Your task to perform on an android device: Clear the shopping cart on walmart.com. Add "usb-a to usb-b" to the cart on walmart.com, then select checkout. Image 0: 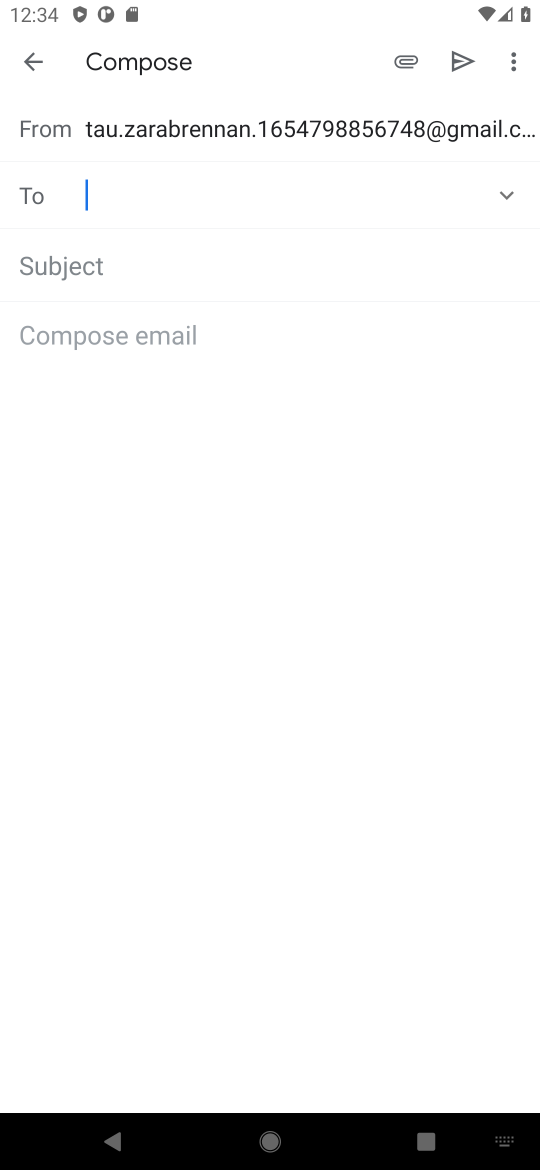
Step 0: press home button
Your task to perform on an android device: Clear the shopping cart on walmart.com. Add "usb-a to usb-b" to the cart on walmart.com, then select checkout. Image 1: 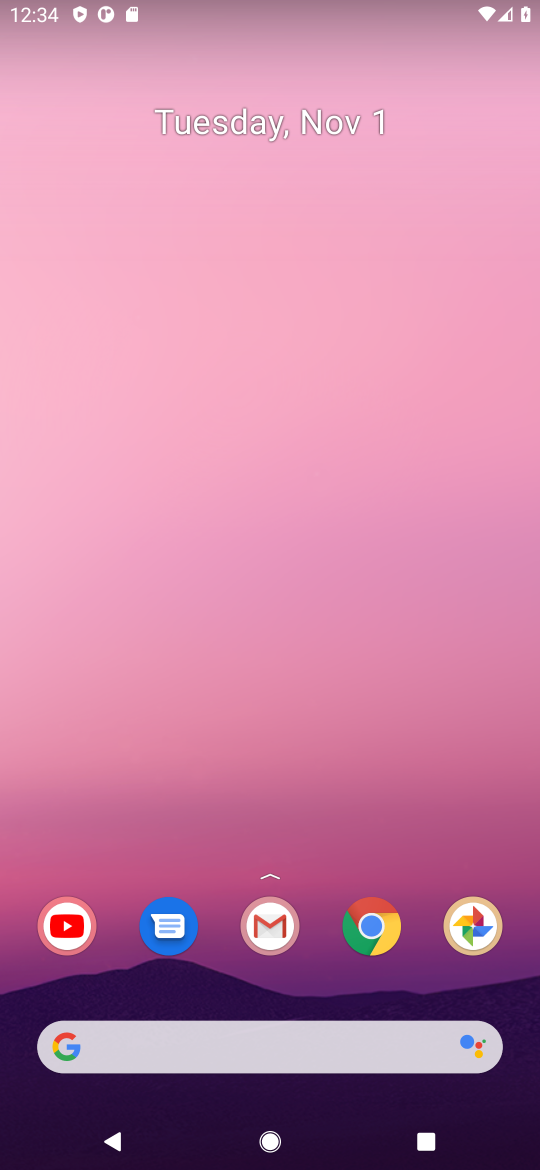
Step 1: click (381, 935)
Your task to perform on an android device: Clear the shopping cart on walmart.com. Add "usb-a to usb-b" to the cart on walmart.com, then select checkout. Image 2: 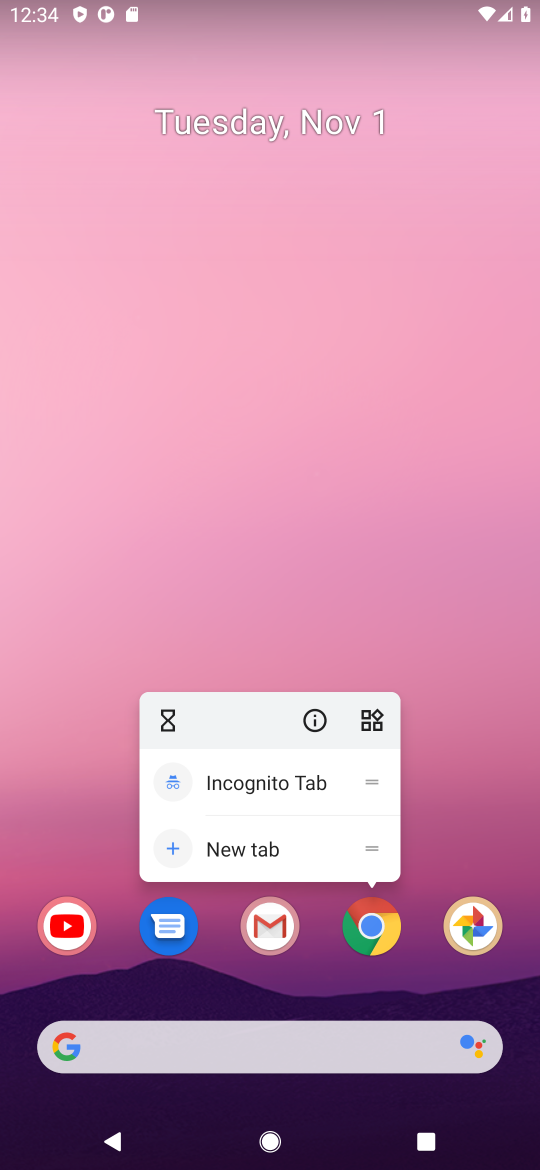
Step 2: click (373, 925)
Your task to perform on an android device: Clear the shopping cart on walmart.com. Add "usb-a to usb-b" to the cart on walmart.com, then select checkout. Image 3: 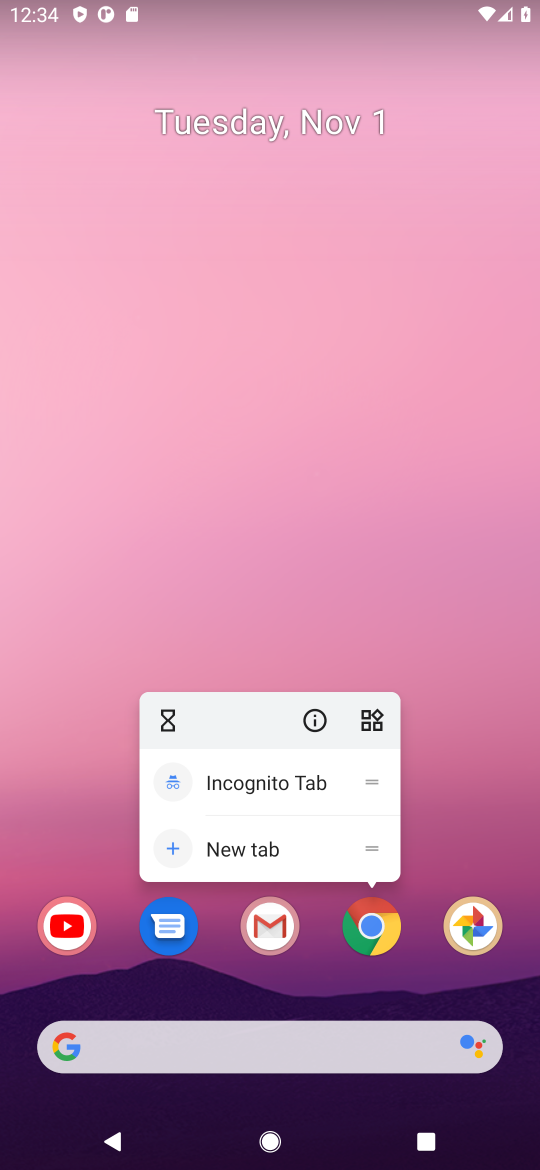
Step 3: click (369, 928)
Your task to perform on an android device: Clear the shopping cart on walmart.com. Add "usb-a to usb-b" to the cart on walmart.com, then select checkout. Image 4: 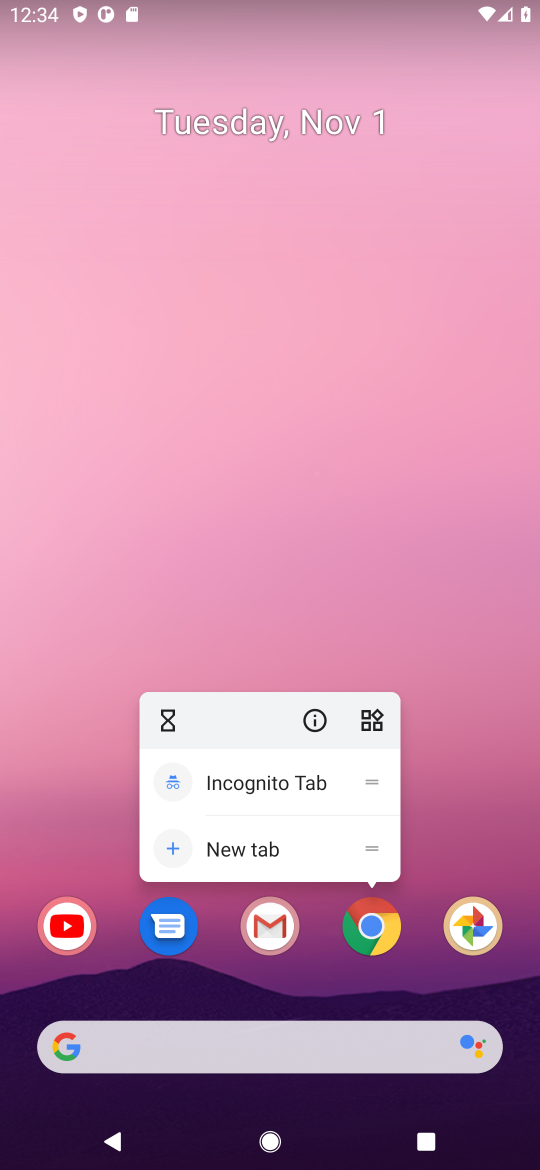
Step 4: click (372, 934)
Your task to perform on an android device: Clear the shopping cart on walmart.com. Add "usb-a to usb-b" to the cart on walmart.com, then select checkout. Image 5: 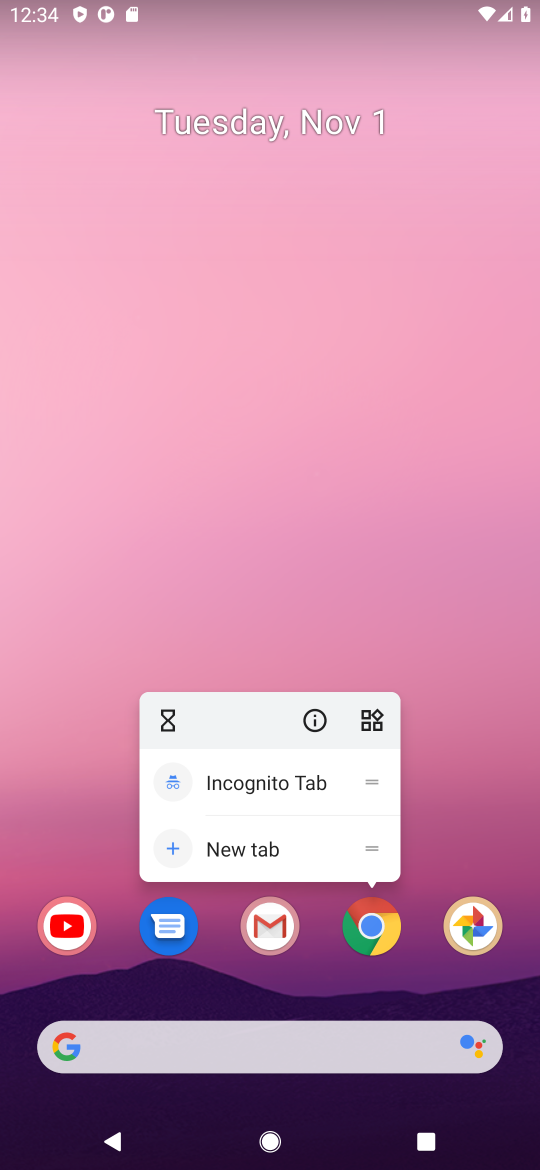
Step 5: click (373, 925)
Your task to perform on an android device: Clear the shopping cart on walmart.com. Add "usb-a to usb-b" to the cart on walmart.com, then select checkout. Image 6: 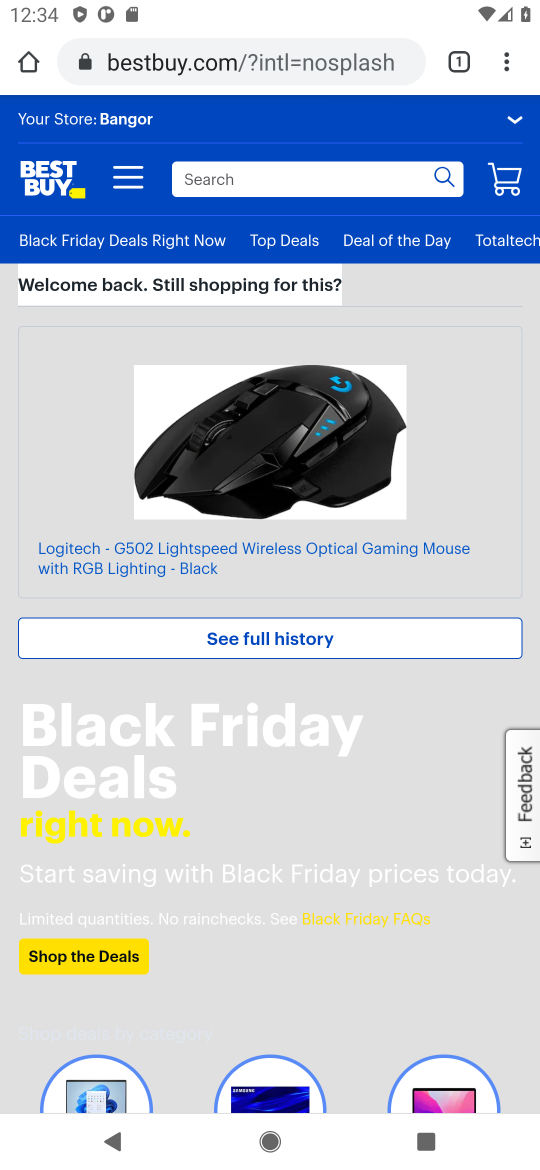
Step 6: click (175, 70)
Your task to perform on an android device: Clear the shopping cart on walmart.com. Add "usb-a to usb-b" to the cart on walmart.com, then select checkout. Image 7: 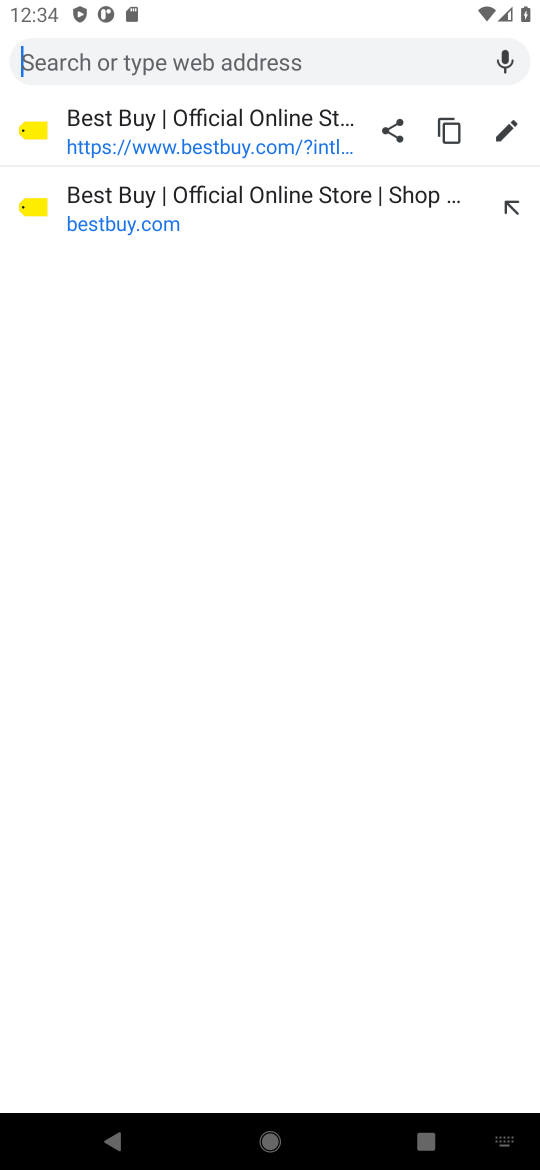
Step 7: type "walmart.com"
Your task to perform on an android device: Clear the shopping cart on walmart.com. Add "usb-a to usb-b" to the cart on walmart.com, then select checkout. Image 8: 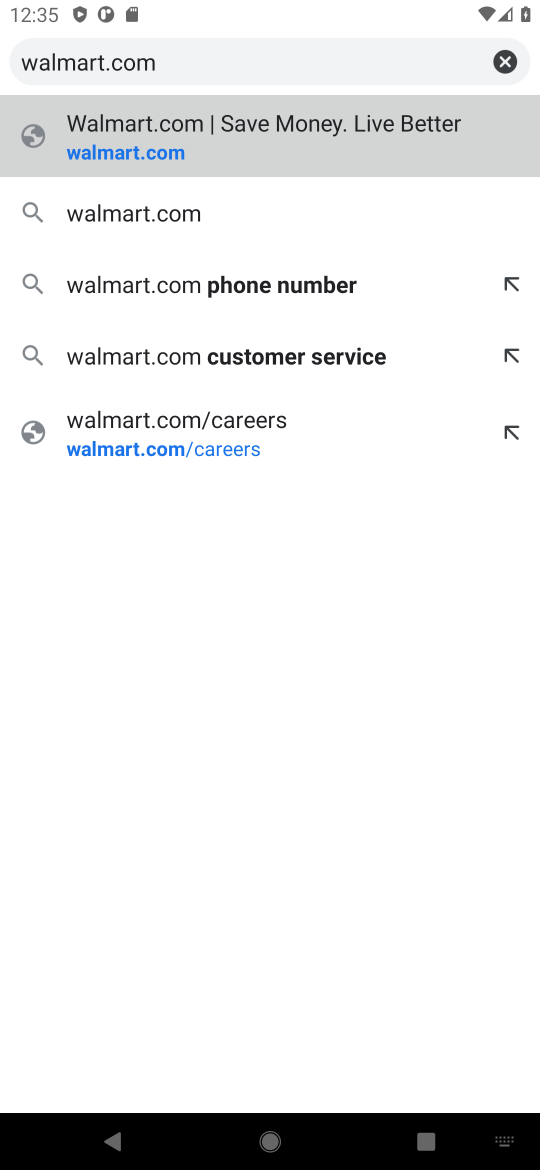
Step 8: type ""
Your task to perform on an android device: Clear the shopping cart on walmart.com. Add "usb-a to usb-b" to the cart on walmart.com, then select checkout. Image 9: 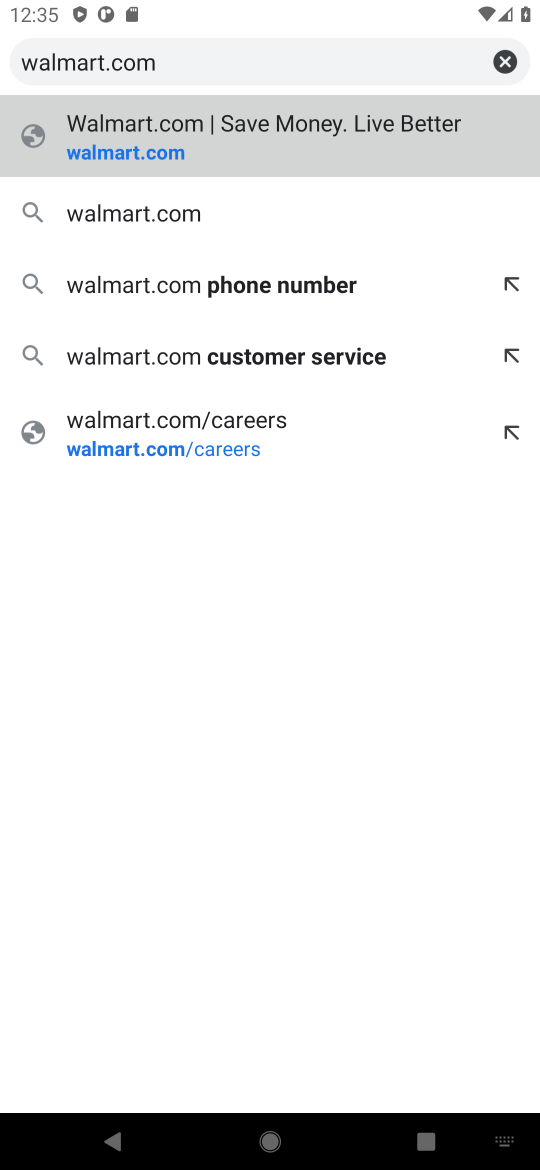
Step 9: click (376, 122)
Your task to perform on an android device: Clear the shopping cart on walmart.com. Add "usb-a to usb-b" to the cart on walmart.com, then select checkout. Image 10: 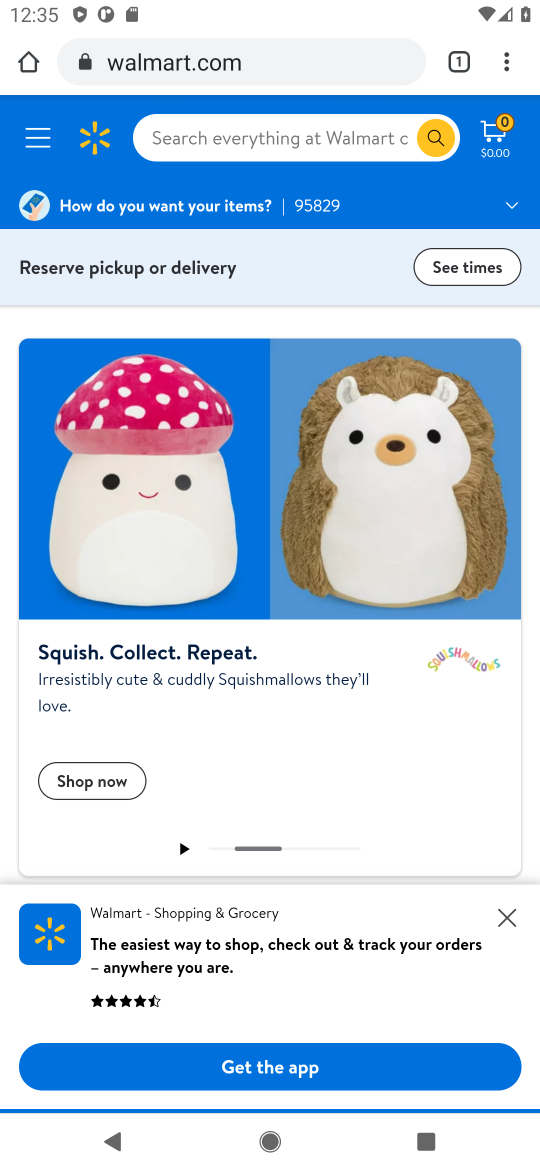
Step 10: click (250, 129)
Your task to perform on an android device: Clear the shopping cart on walmart.com. Add "usb-a to usb-b" to the cart on walmart.com, then select checkout. Image 11: 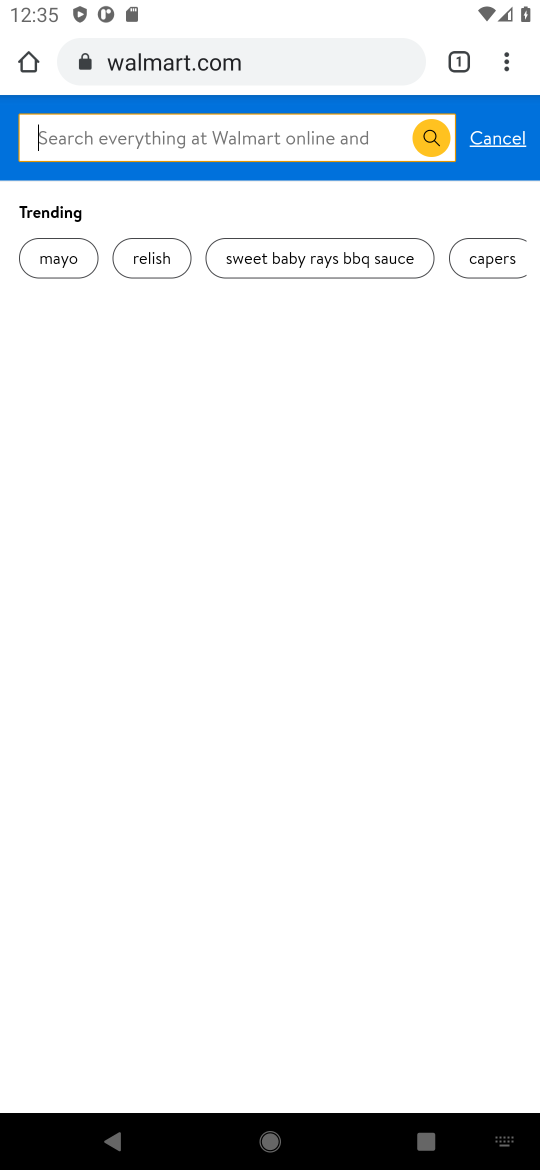
Step 11: type "usb-a to usb-b"
Your task to perform on an android device: Clear the shopping cart on walmart.com. Add "usb-a to usb-b" to the cart on walmart.com, then select checkout. Image 12: 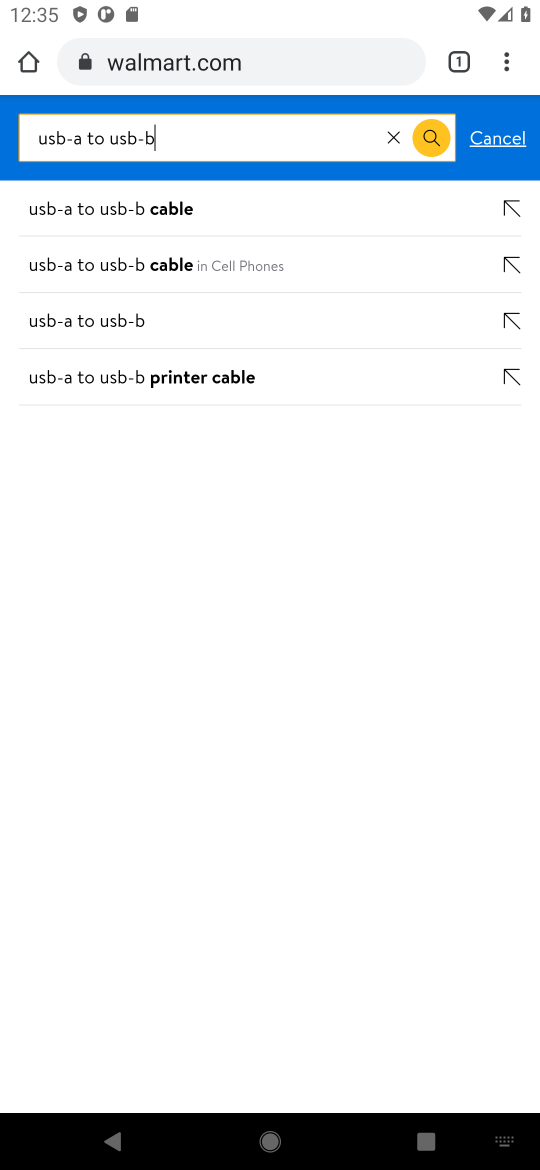
Step 12: type ""
Your task to perform on an android device: Clear the shopping cart on walmart.com. Add "usb-a to usb-b" to the cart on walmart.com, then select checkout. Image 13: 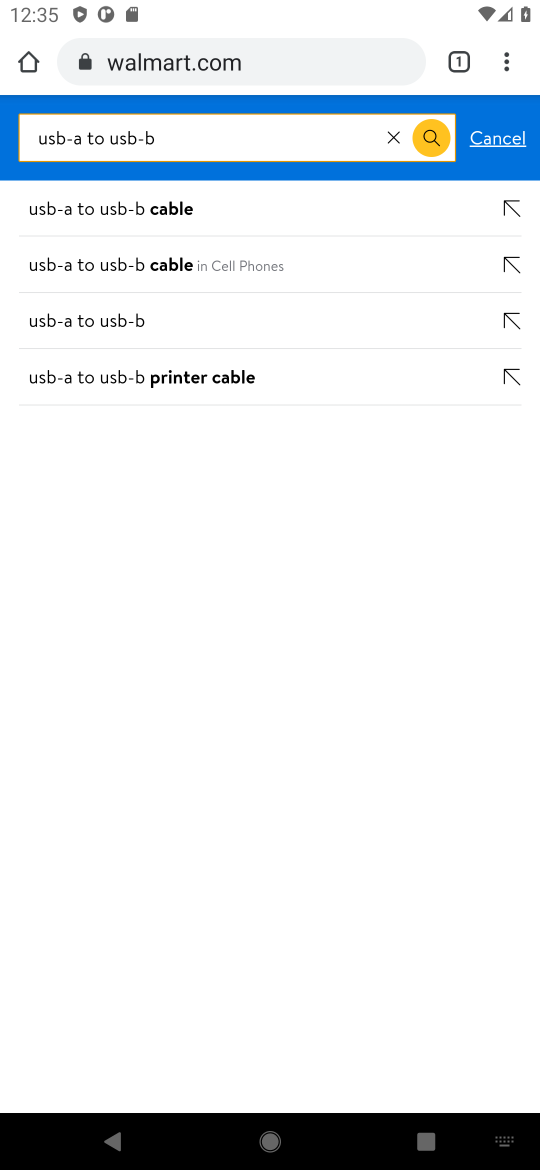
Step 13: click (211, 205)
Your task to perform on an android device: Clear the shopping cart on walmart.com. Add "usb-a to usb-b" to the cart on walmart.com, then select checkout. Image 14: 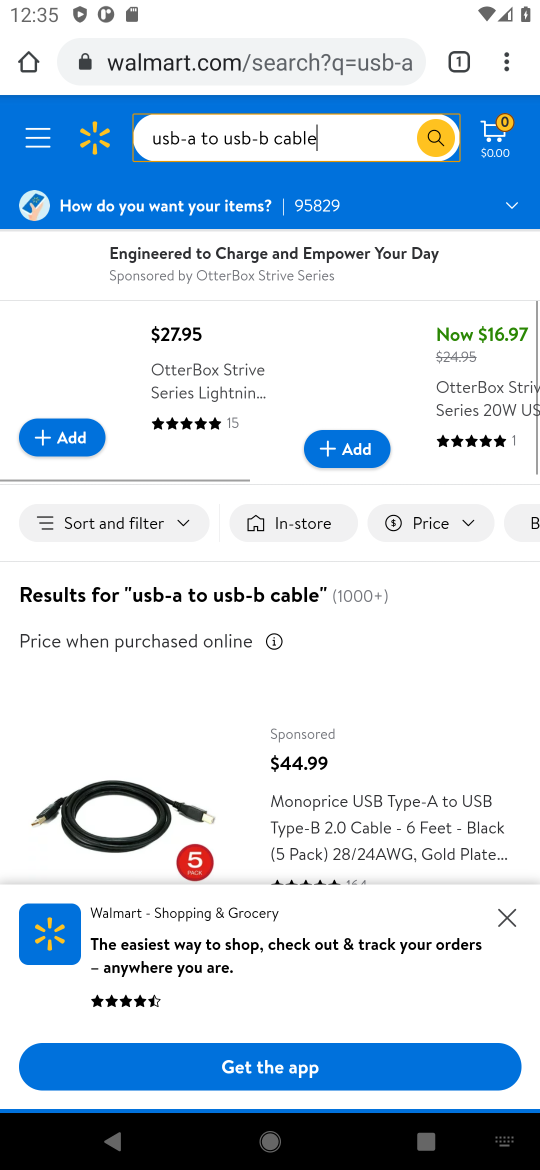
Step 14: click (510, 928)
Your task to perform on an android device: Clear the shopping cart on walmart.com. Add "usb-a to usb-b" to the cart on walmart.com, then select checkout. Image 15: 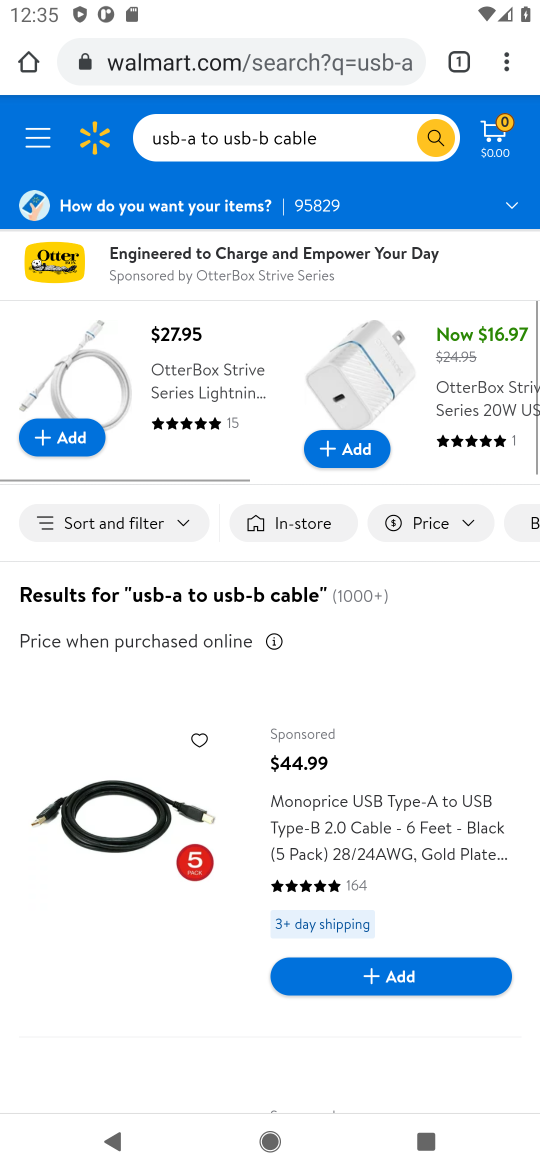
Step 15: click (397, 959)
Your task to perform on an android device: Clear the shopping cart on walmart.com. Add "usb-a to usb-b" to the cart on walmart.com, then select checkout. Image 16: 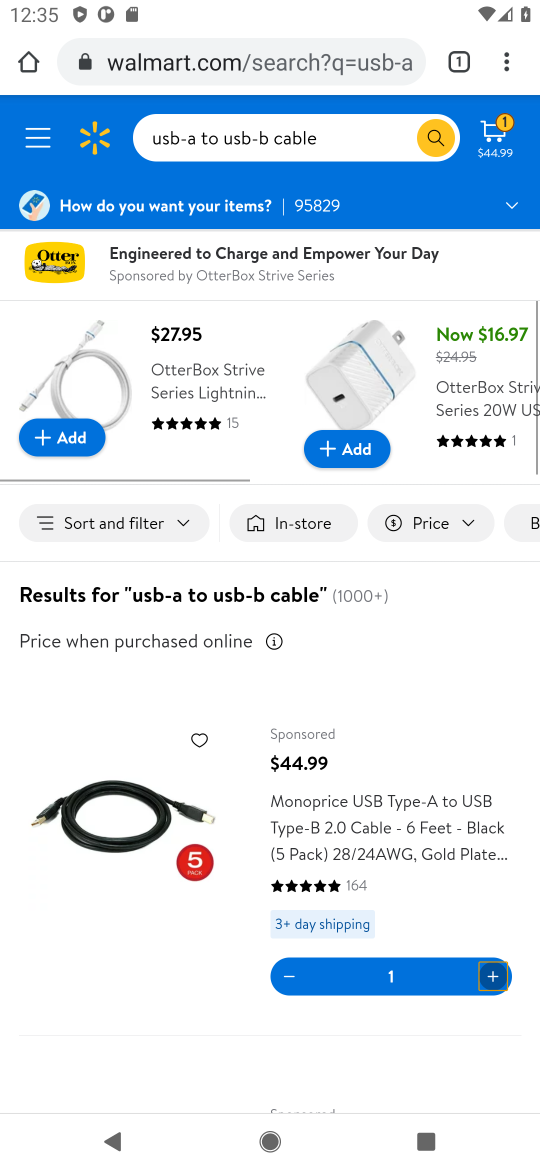
Step 16: click (489, 140)
Your task to perform on an android device: Clear the shopping cart on walmart.com. Add "usb-a to usb-b" to the cart on walmart.com, then select checkout. Image 17: 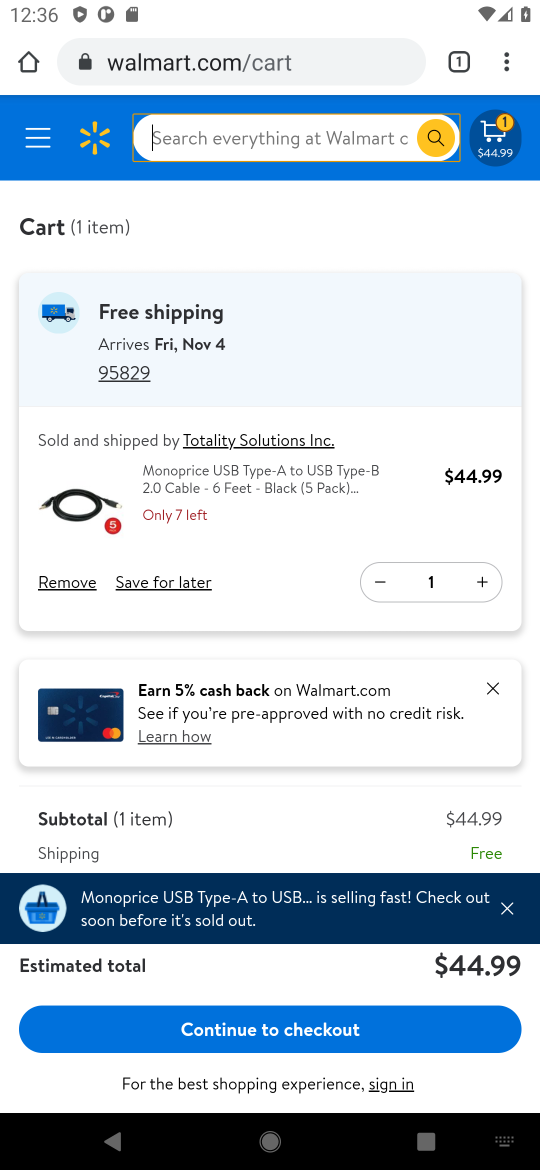
Step 17: drag from (420, 677) to (469, 262)
Your task to perform on an android device: Clear the shopping cart on walmart.com. Add "usb-a to usb-b" to the cart on walmart.com, then select checkout. Image 18: 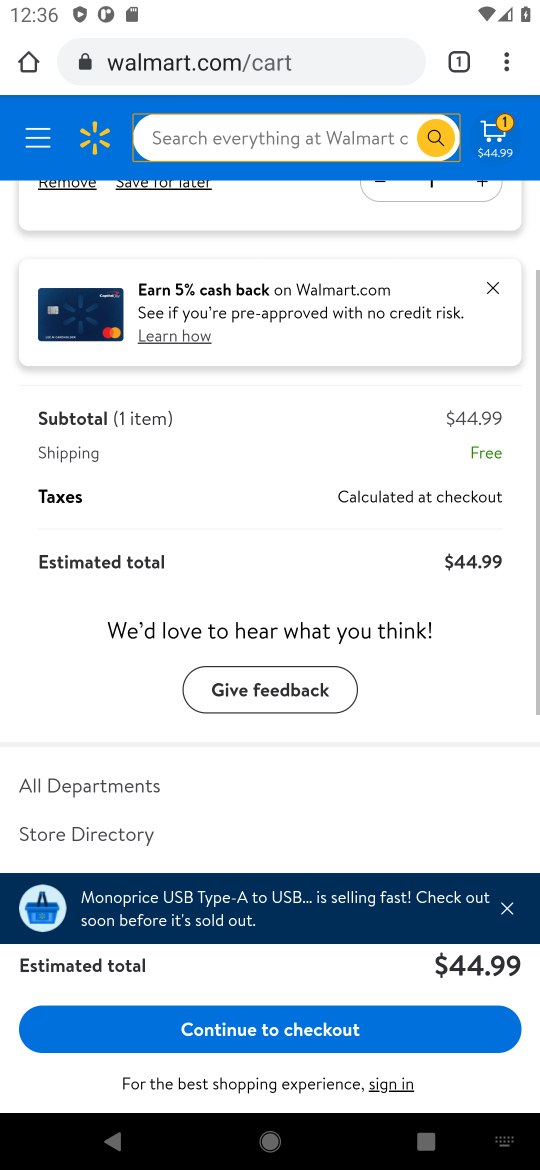
Step 18: drag from (327, 530) to (355, 404)
Your task to perform on an android device: Clear the shopping cart on walmart.com. Add "usb-a to usb-b" to the cart on walmart.com, then select checkout. Image 19: 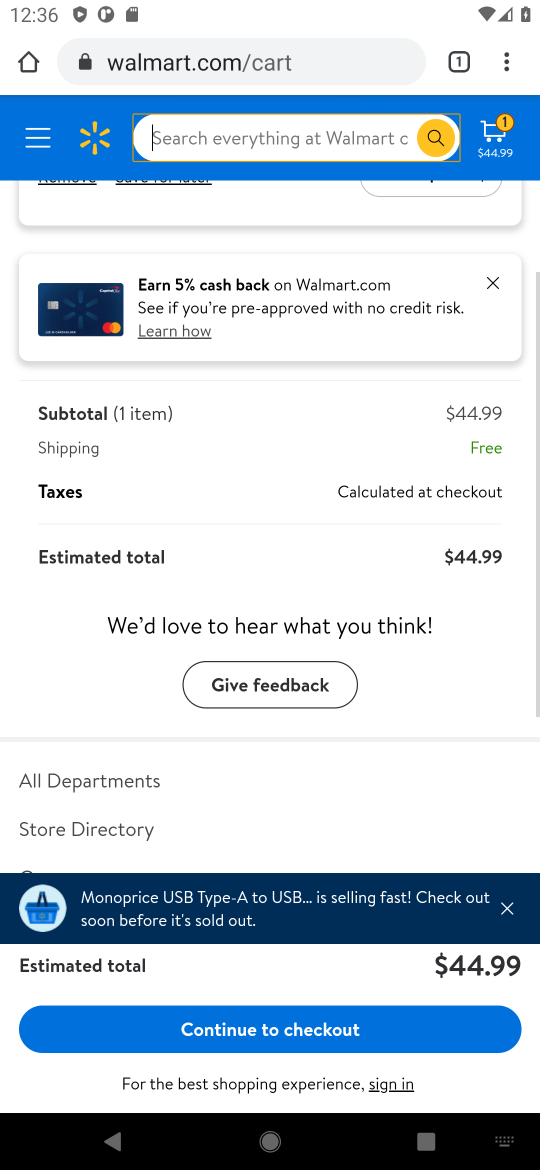
Step 19: drag from (322, 642) to (353, 474)
Your task to perform on an android device: Clear the shopping cart on walmart.com. Add "usb-a to usb-b" to the cart on walmart.com, then select checkout. Image 20: 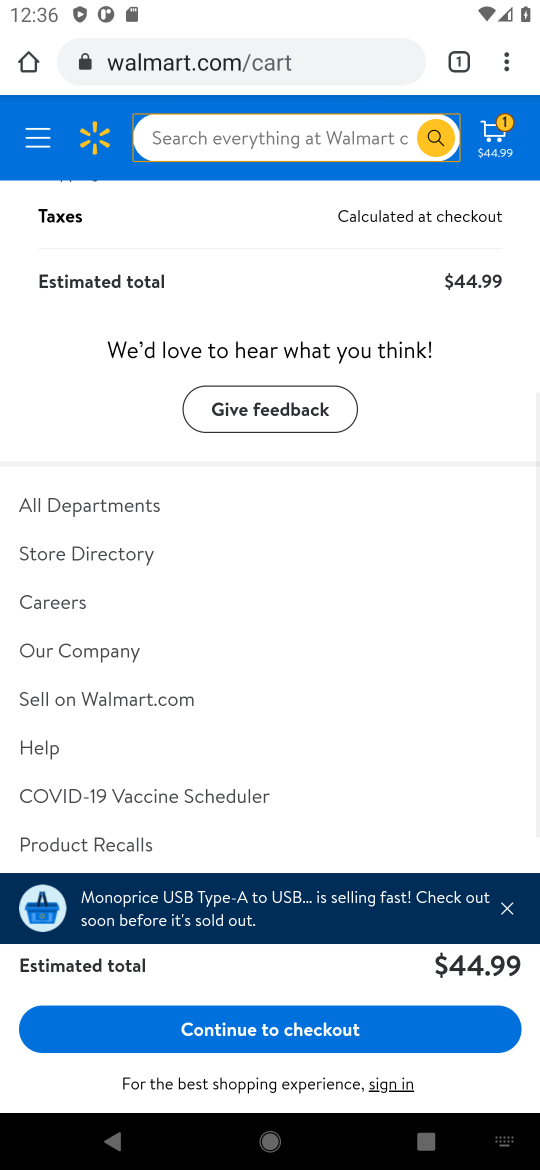
Step 20: click (275, 1043)
Your task to perform on an android device: Clear the shopping cart on walmart.com. Add "usb-a to usb-b" to the cart on walmart.com, then select checkout. Image 21: 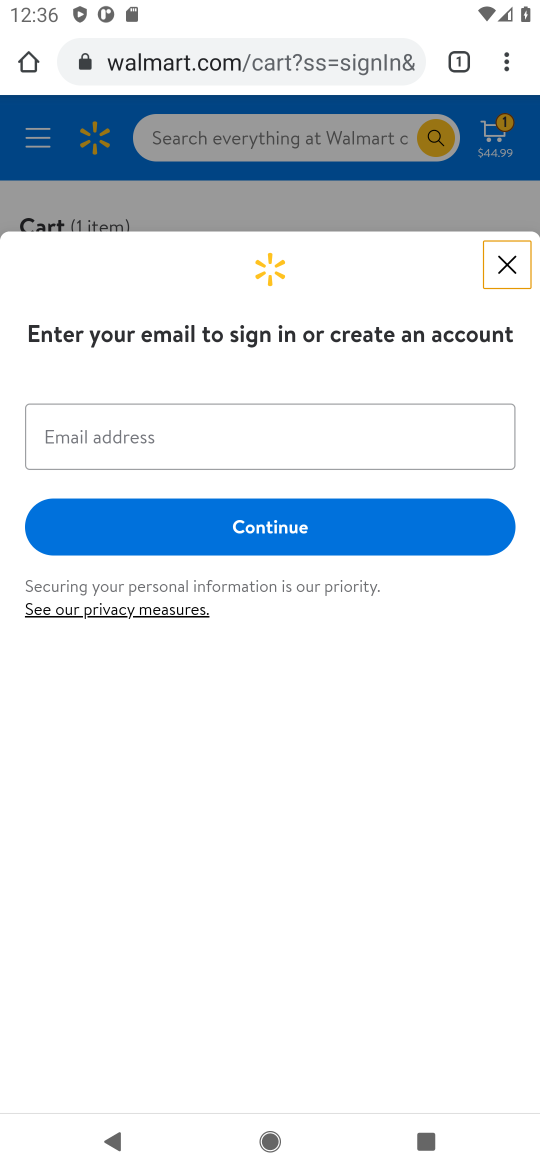
Step 21: click (514, 264)
Your task to perform on an android device: Clear the shopping cart on walmart.com. Add "usb-a to usb-b" to the cart on walmart.com, then select checkout. Image 22: 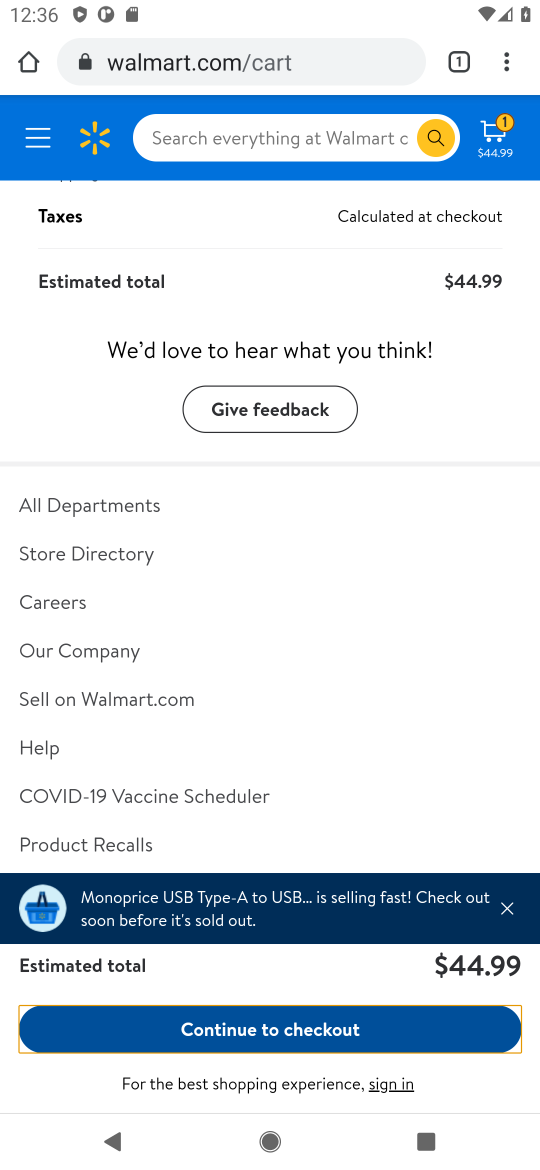
Step 22: task complete